Your task to perform on an android device: turn smart compose on in the gmail app Image 0: 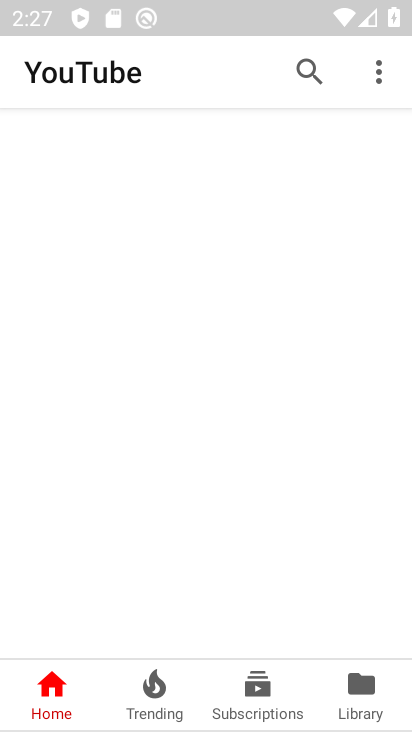
Step 0: drag from (220, 728) to (220, 18)
Your task to perform on an android device: turn smart compose on in the gmail app Image 1: 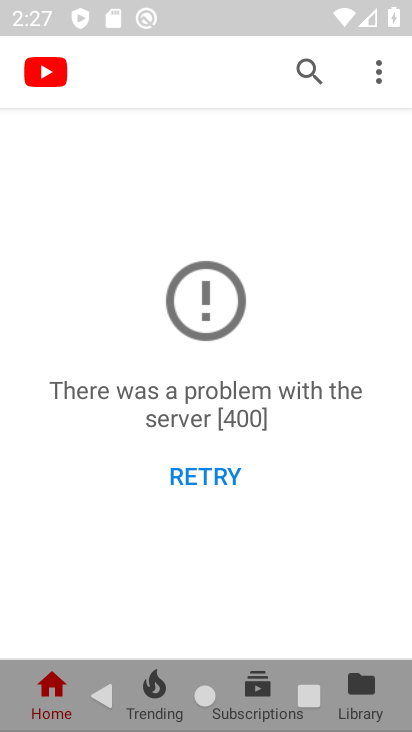
Step 1: press home button
Your task to perform on an android device: turn smart compose on in the gmail app Image 2: 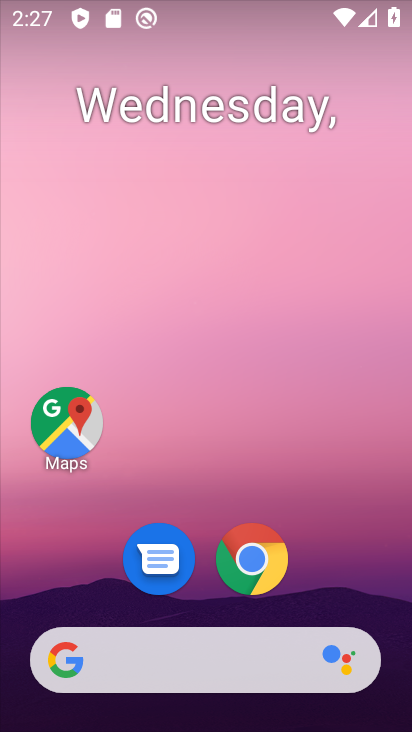
Step 2: drag from (229, 652) to (196, 25)
Your task to perform on an android device: turn smart compose on in the gmail app Image 3: 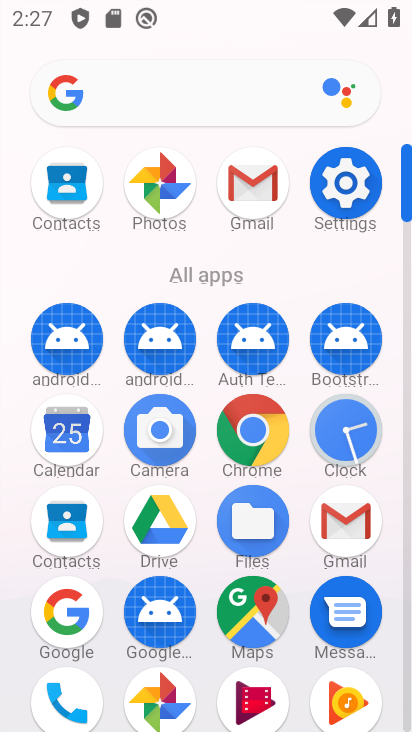
Step 3: click (352, 527)
Your task to perform on an android device: turn smart compose on in the gmail app Image 4: 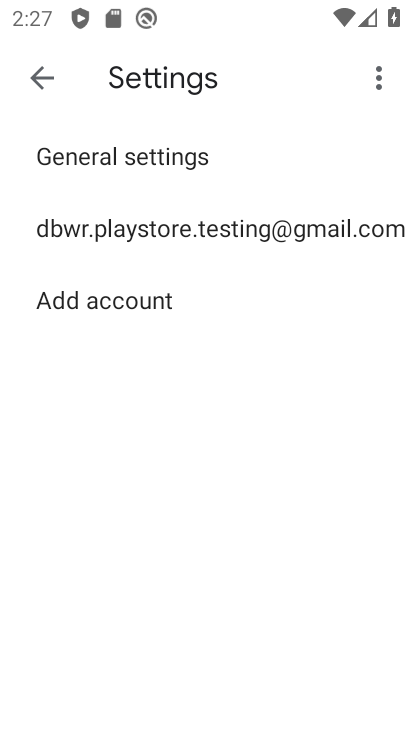
Step 4: click (200, 228)
Your task to perform on an android device: turn smart compose on in the gmail app Image 5: 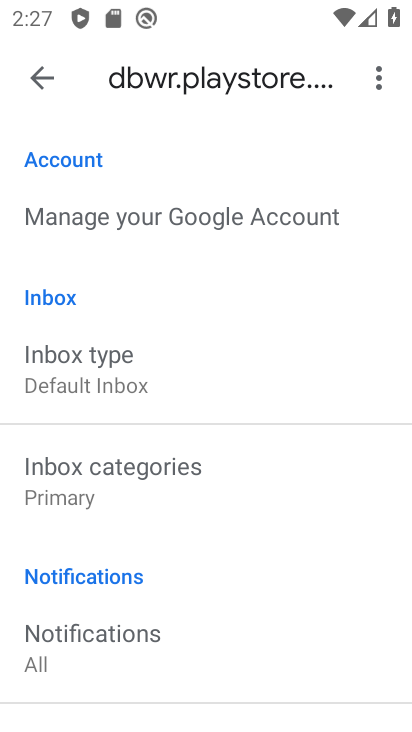
Step 5: task complete